Your task to perform on an android device: Check the weather Image 0: 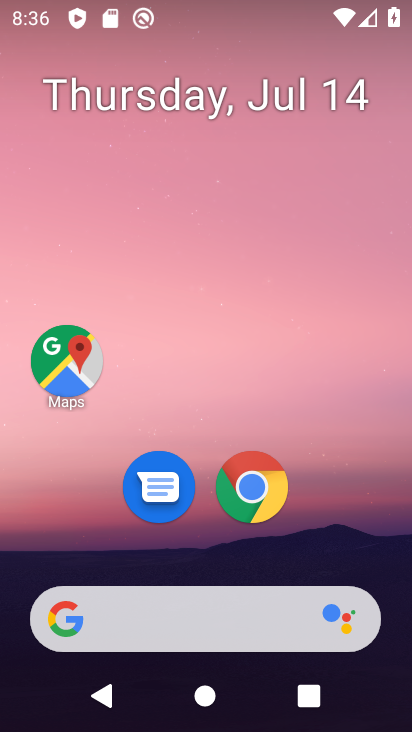
Step 0: click (216, 629)
Your task to perform on an android device: Check the weather Image 1: 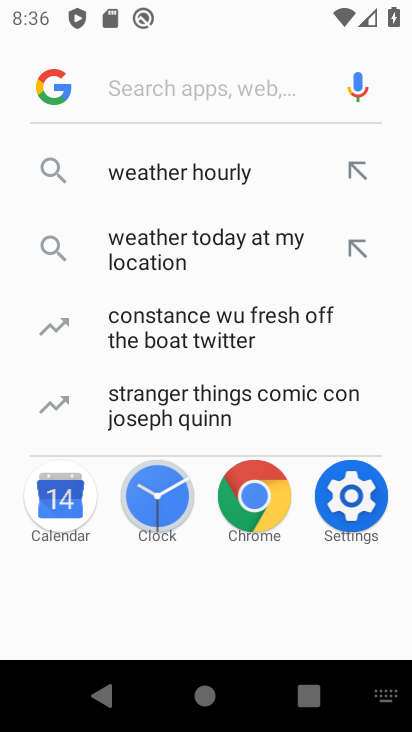
Step 1: click (158, 73)
Your task to perform on an android device: Check the weather Image 2: 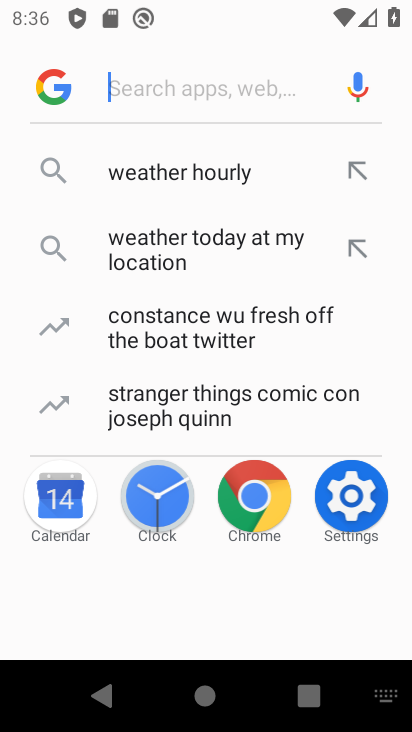
Step 2: type "weather"
Your task to perform on an android device: Check the weather Image 3: 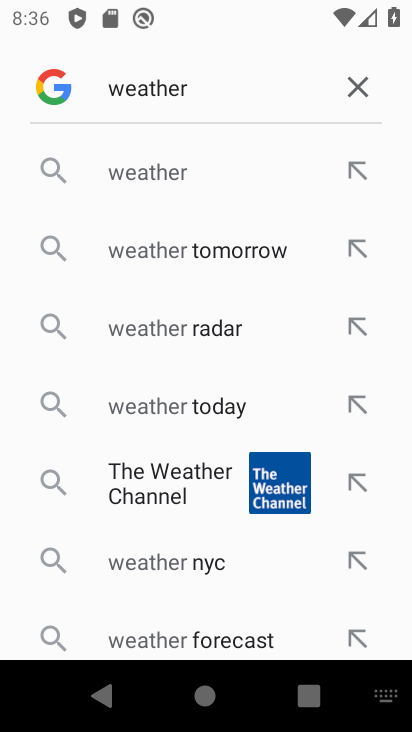
Step 3: click (181, 175)
Your task to perform on an android device: Check the weather Image 4: 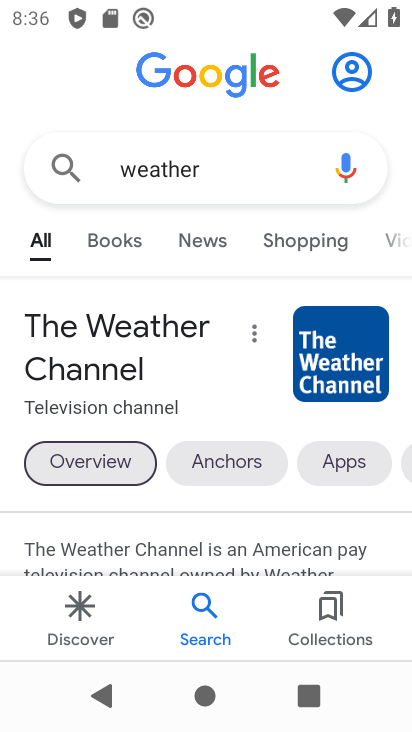
Step 4: task complete